Your task to perform on an android device: delete browsing data in the chrome app Image 0: 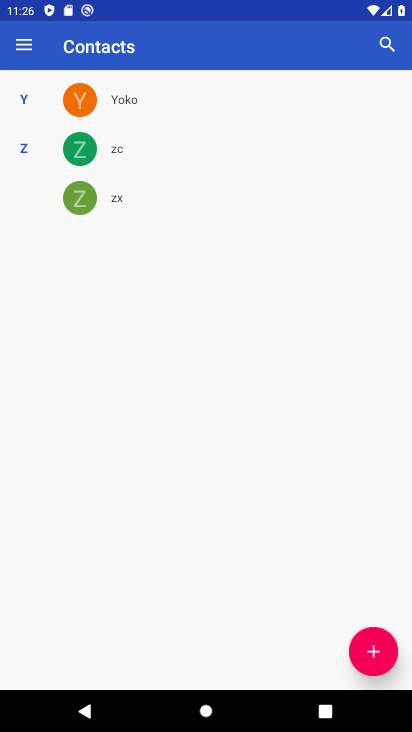
Step 0: press home button
Your task to perform on an android device: delete browsing data in the chrome app Image 1: 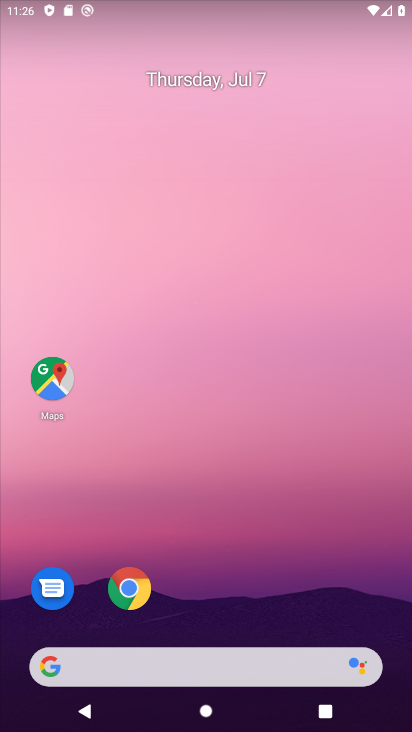
Step 1: click (134, 586)
Your task to perform on an android device: delete browsing data in the chrome app Image 2: 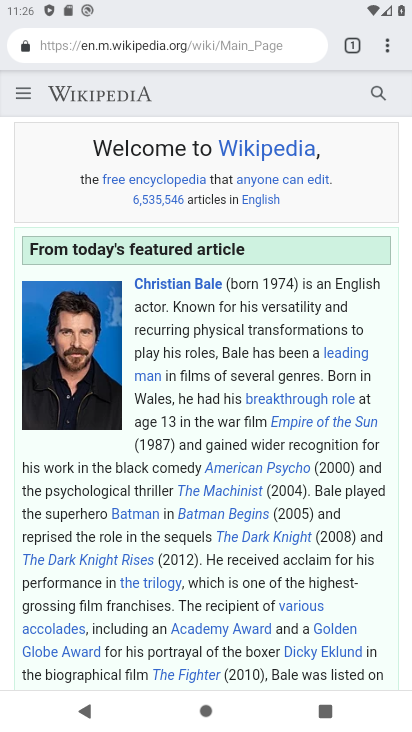
Step 2: click (392, 38)
Your task to perform on an android device: delete browsing data in the chrome app Image 3: 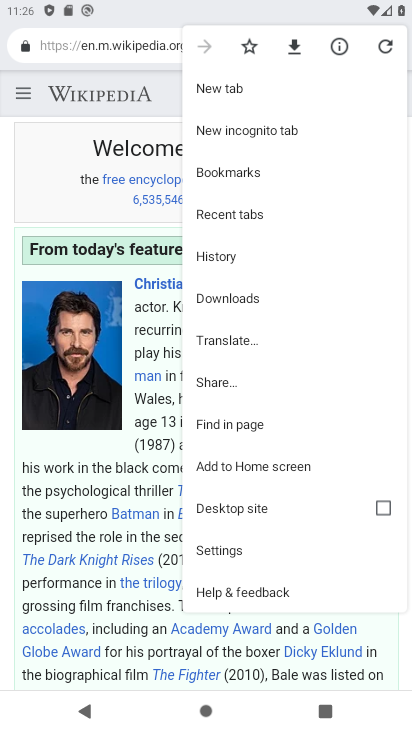
Step 3: click (220, 262)
Your task to perform on an android device: delete browsing data in the chrome app Image 4: 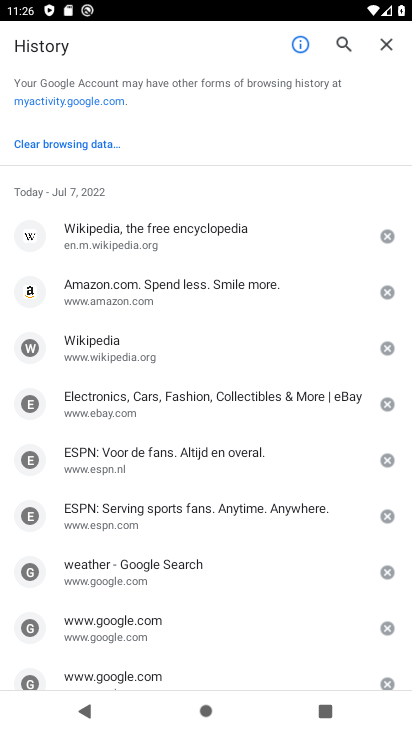
Step 4: click (82, 135)
Your task to perform on an android device: delete browsing data in the chrome app Image 5: 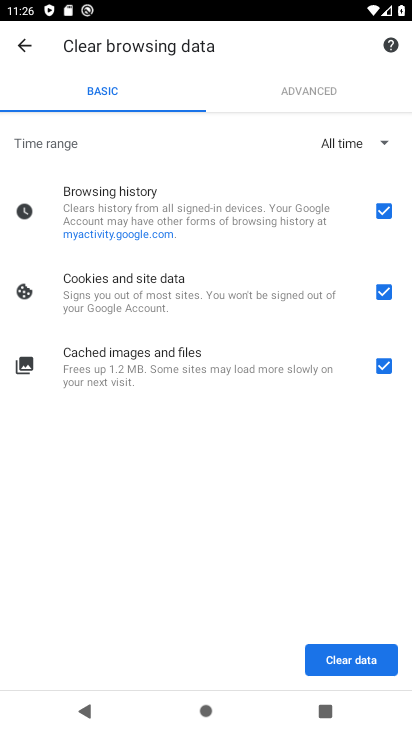
Step 5: click (332, 647)
Your task to perform on an android device: delete browsing data in the chrome app Image 6: 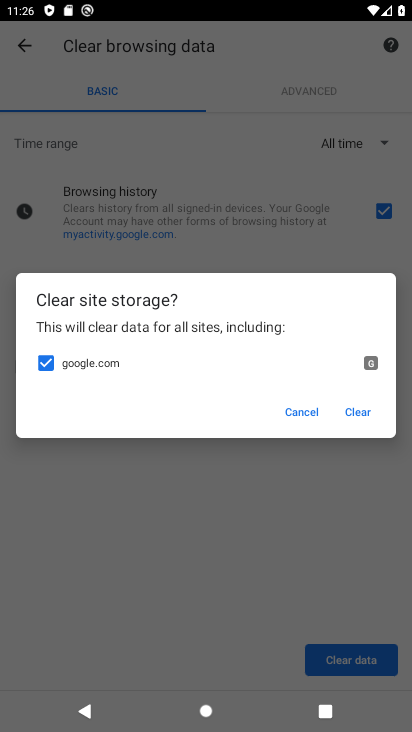
Step 6: click (356, 406)
Your task to perform on an android device: delete browsing data in the chrome app Image 7: 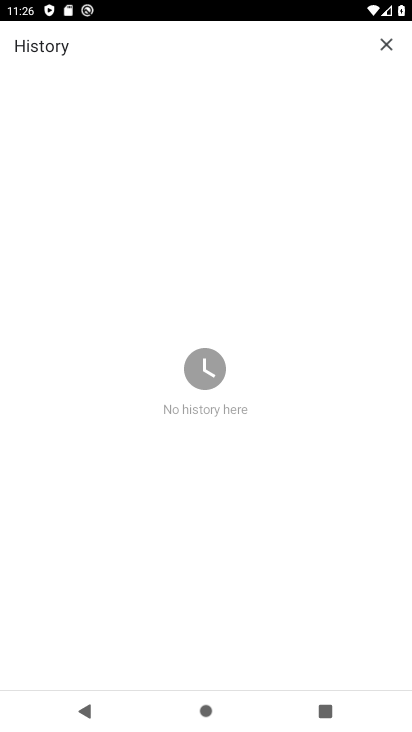
Step 7: task complete